Your task to perform on an android device: toggle data saver in the chrome app Image 0: 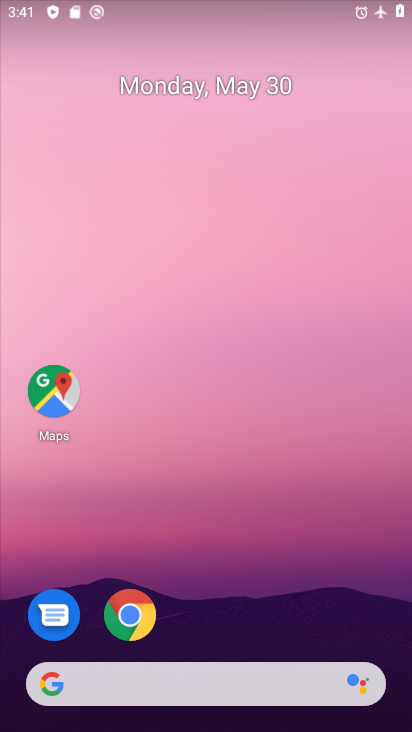
Step 0: click (132, 615)
Your task to perform on an android device: toggle data saver in the chrome app Image 1: 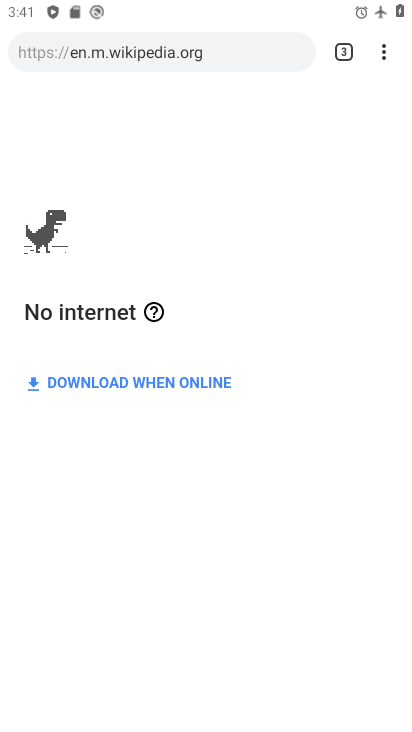
Step 1: click (385, 44)
Your task to perform on an android device: toggle data saver in the chrome app Image 2: 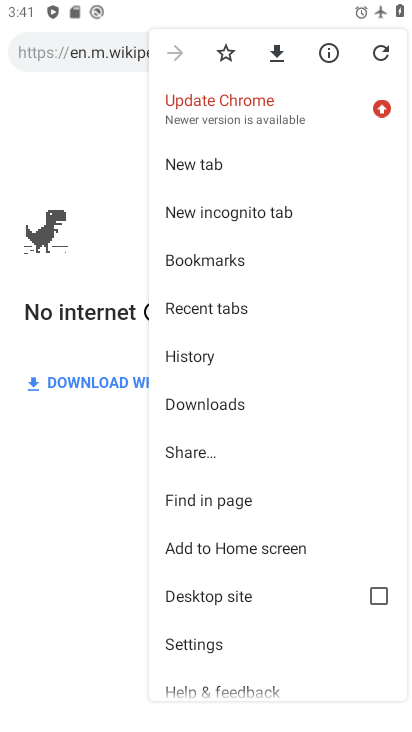
Step 2: click (226, 646)
Your task to perform on an android device: toggle data saver in the chrome app Image 3: 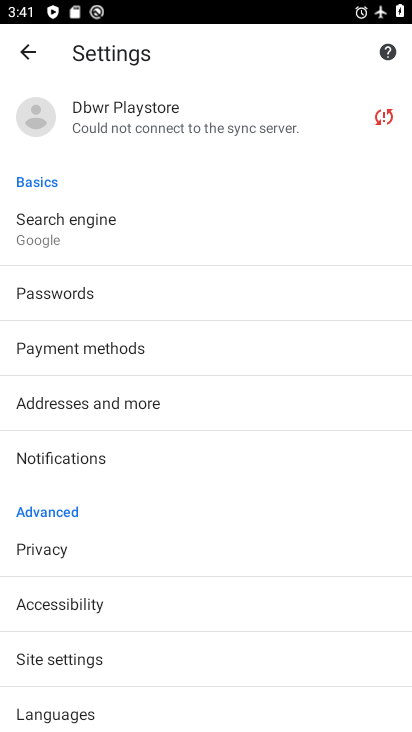
Step 3: drag from (226, 642) to (234, 361)
Your task to perform on an android device: toggle data saver in the chrome app Image 4: 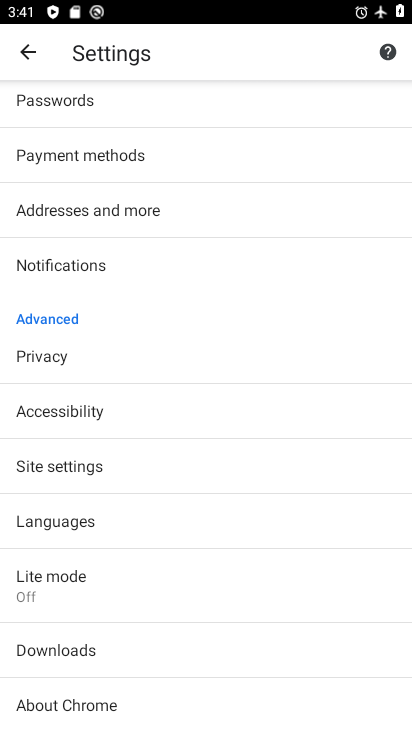
Step 4: click (158, 584)
Your task to perform on an android device: toggle data saver in the chrome app Image 5: 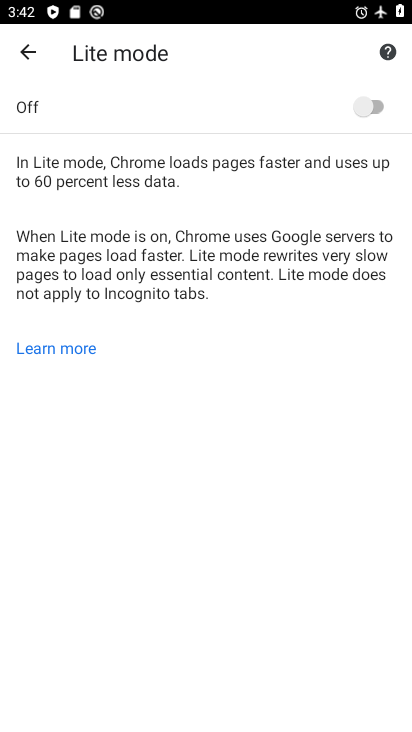
Step 5: click (369, 105)
Your task to perform on an android device: toggle data saver in the chrome app Image 6: 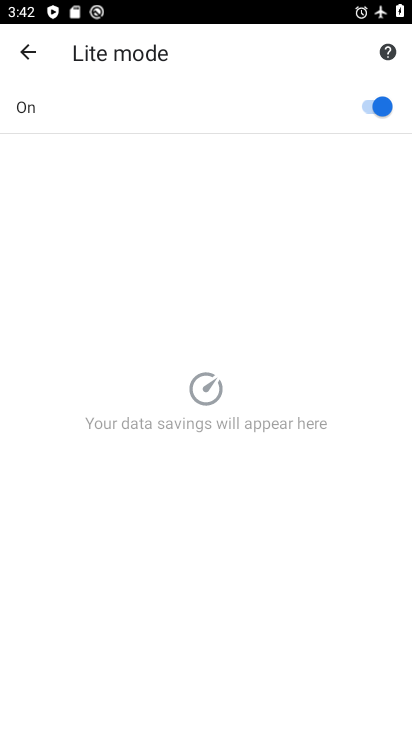
Step 6: task complete